Your task to perform on an android device: set the timer Image 0: 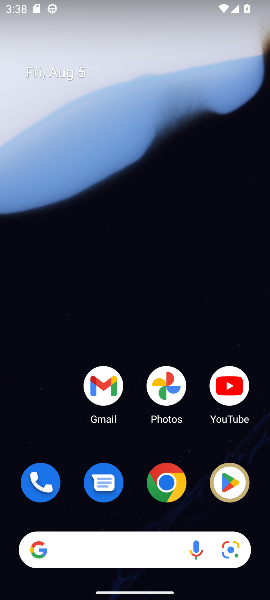
Step 0: drag from (136, 448) to (147, 0)
Your task to perform on an android device: set the timer Image 1: 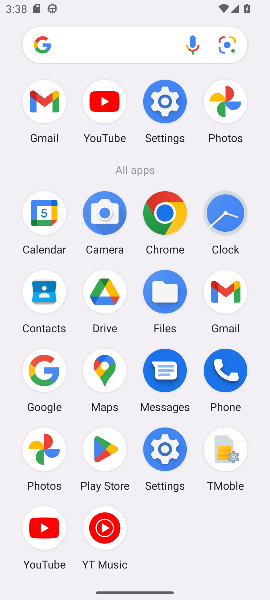
Step 1: click (223, 206)
Your task to perform on an android device: set the timer Image 2: 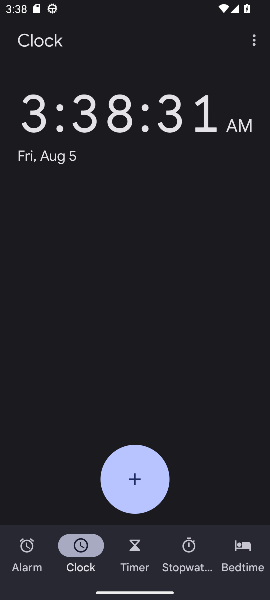
Step 2: click (133, 546)
Your task to perform on an android device: set the timer Image 3: 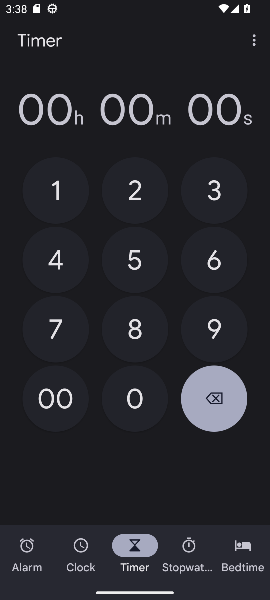
Step 3: click (202, 199)
Your task to perform on an android device: set the timer Image 4: 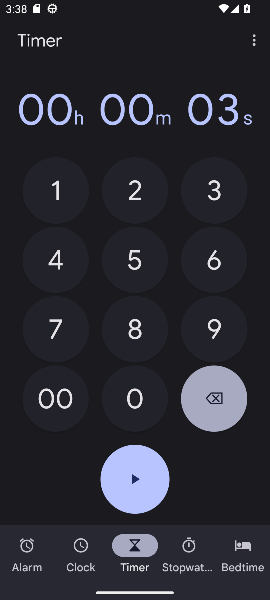
Step 4: click (63, 403)
Your task to perform on an android device: set the timer Image 5: 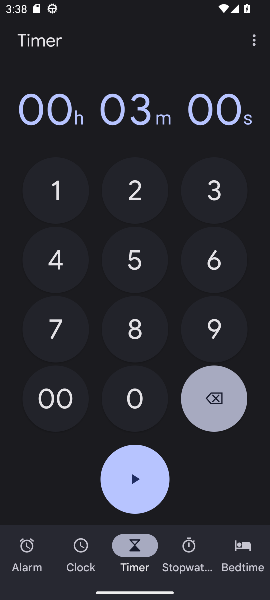
Step 5: click (141, 403)
Your task to perform on an android device: set the timer Image 6: 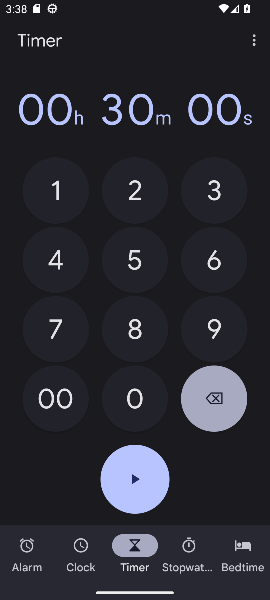
Step 6: click (131, 472)
Your task to perform on an android device: set the timer Image 7: 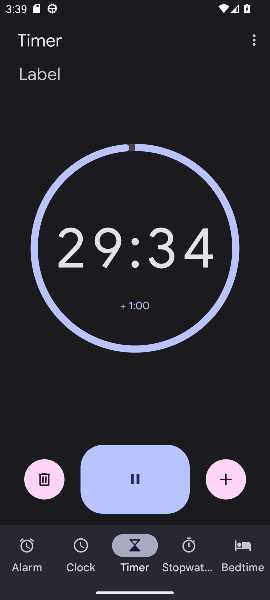
Step 7: task complete